Your task to perform on an android device: turn off notifications in google photos Image 0: 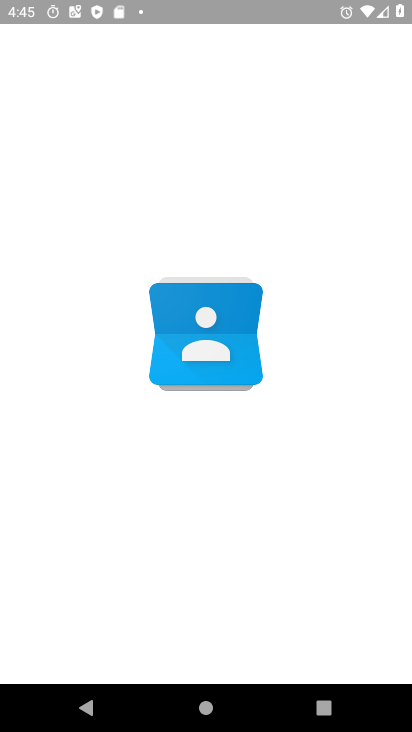
Step 0: drag from (143, 638) to (142, 274)
Your task to perform on an android device: turn off notifications in google photos Image 1: 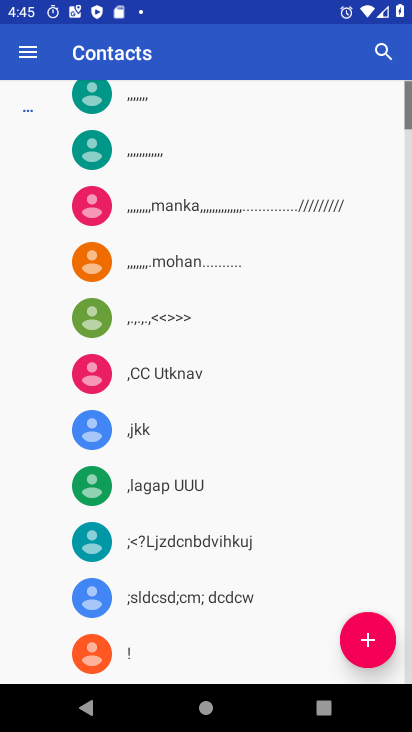
Step 1: press home button
Your task to perform on an android device: turn off notifications in google photos Image 2: 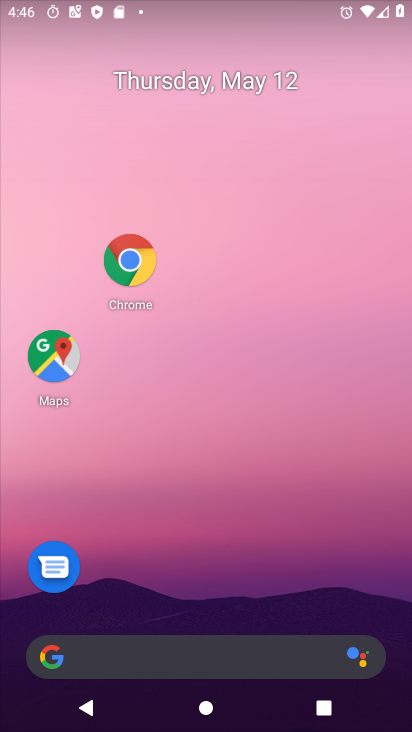
Step 2: drag from (191, 633) to (253, 184)
Your task to perform on an android device: turn off notifications in google photos Image 3: 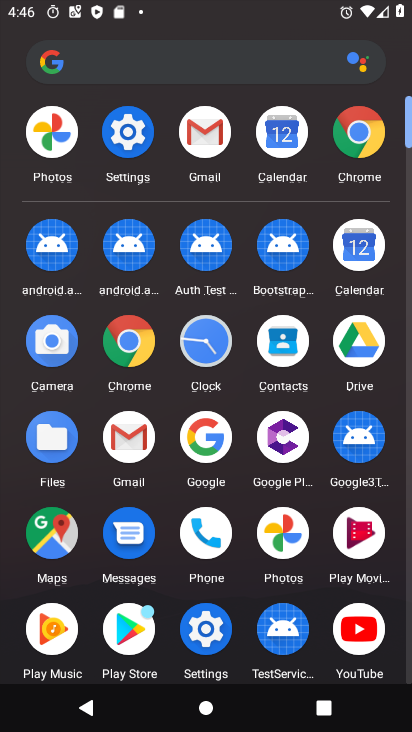
Step 3: click (276, 546)
Your task to perform on an android device: turn off notifications in google photos Image 4: 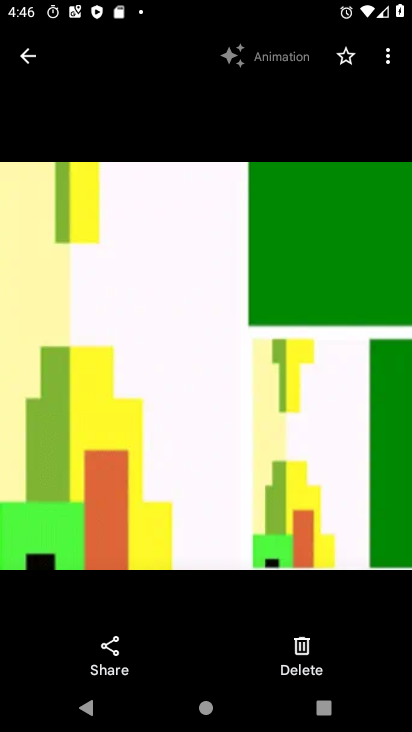
Step 4: click (37, 62)
Your task to perform on an android device: turn off notifications in google photos Image 5: 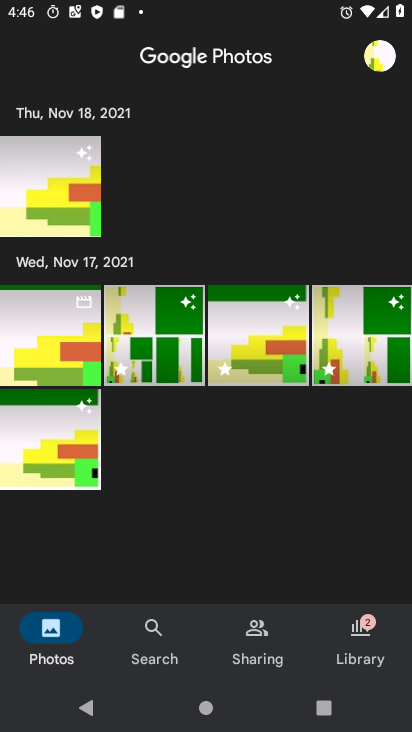
Step 5: click (380, 56)
Your task to perform on an android device: turn off notifications in google photos Image 6: 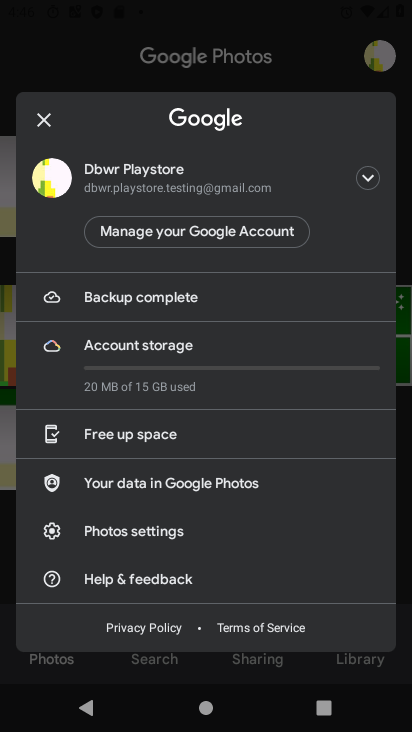
Step 6: click (124, 530)
Your task to perform on an android device: turn off notifications in google photos Image 7: 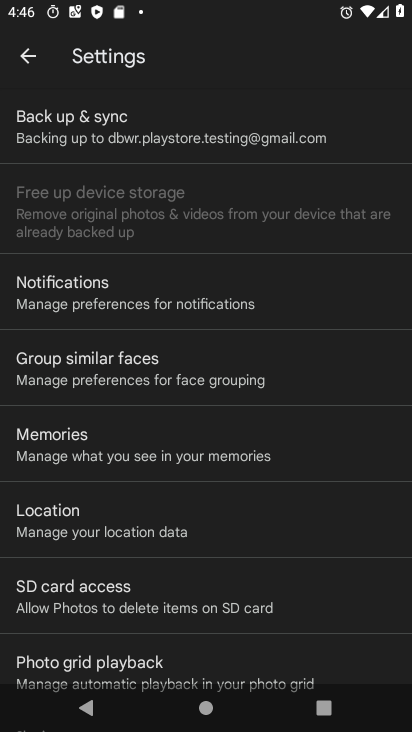
Step 7: click (115, 292)
Your task to perform on an android device: turn off notifications in google photos Image 8: 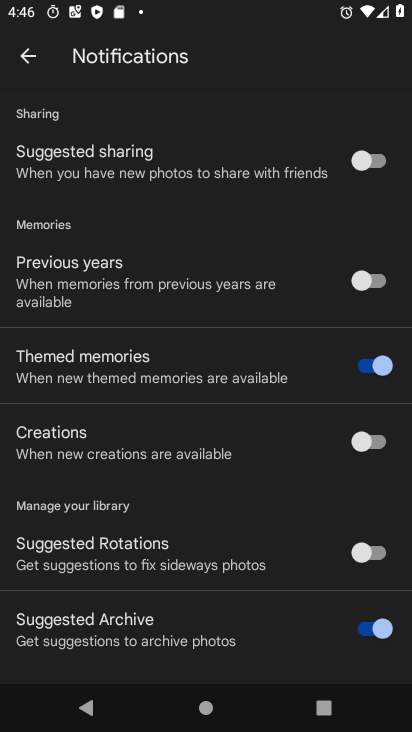
Step 8: drag from (112, 656) to (147, 268)
Your task to perform on an android device: turn off notifications in google photos Image 9: 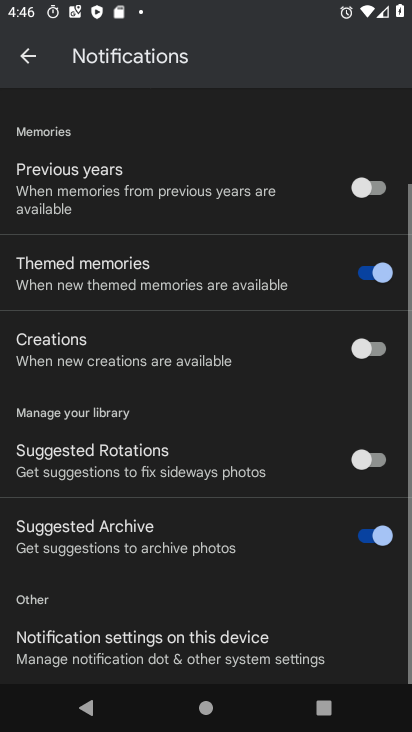
Step 9: click (141, 676)
Your task to perform on an android device: turn off notifications in google photos Image 10: 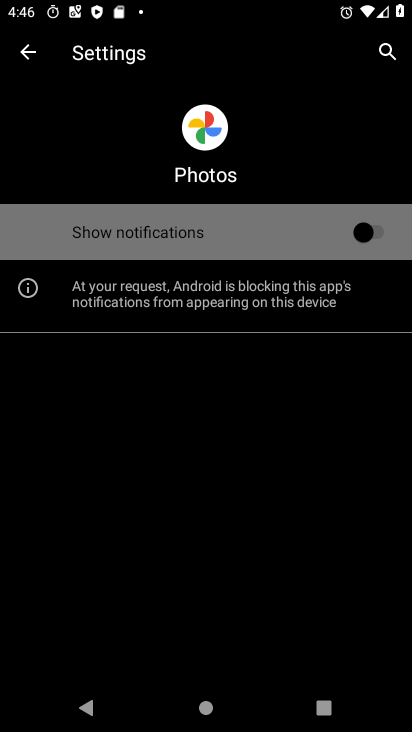
Step 10: task complete